Your task to perform on an android device: change text size in settings app Image 0: 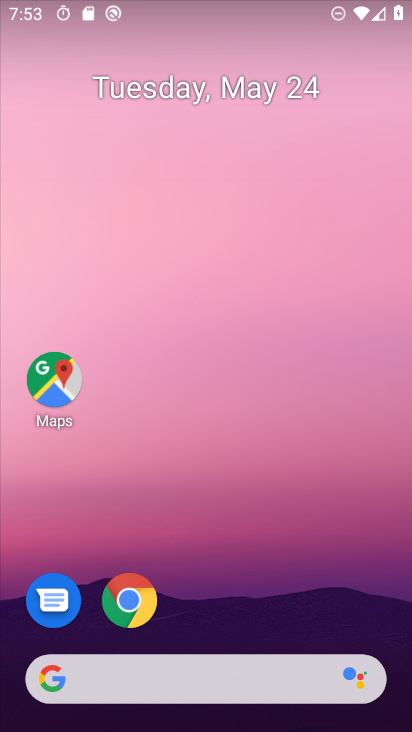
Step 0: drag from (220, 624) to (312, 35)
Your task to perform on an android device: change text size in settings app Image 1: 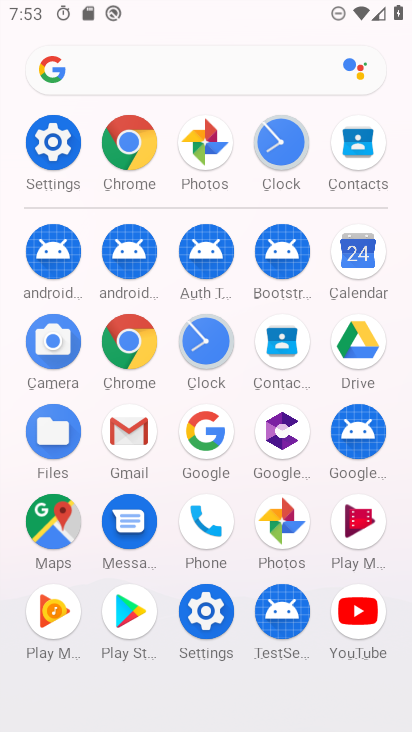
Step 1: click (57, 133)
Your task to perform on an android device: change text size in settings app Image 2: 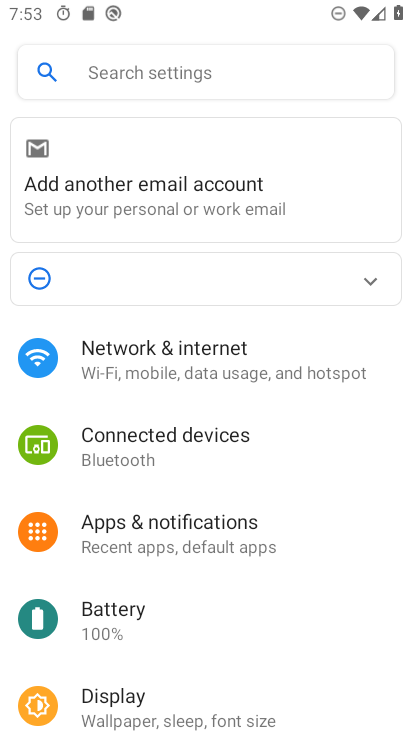
Step 2: click (142, 62)
Your task to perform on an android device: change text size in settings app Image 3: 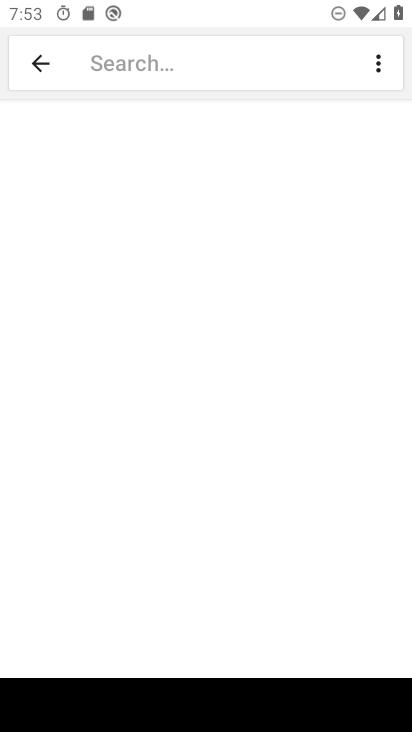
Step 3: type "text size"
Your task to perform on an android device: change text size in settings app Image 4: 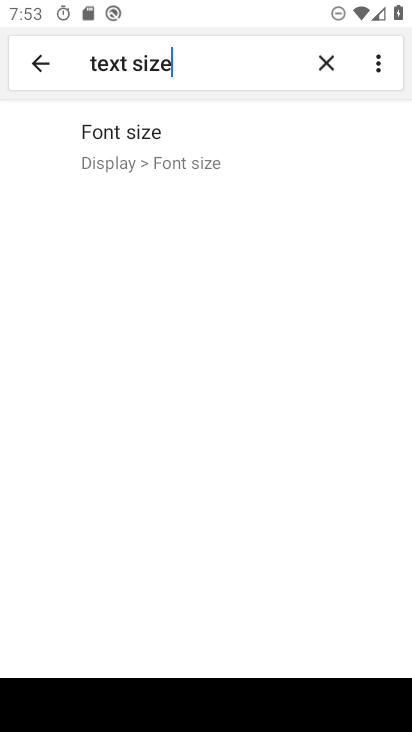
Step 4: click (165, 145)
Your task to perform on an android device: change text size in settings app Image 5: 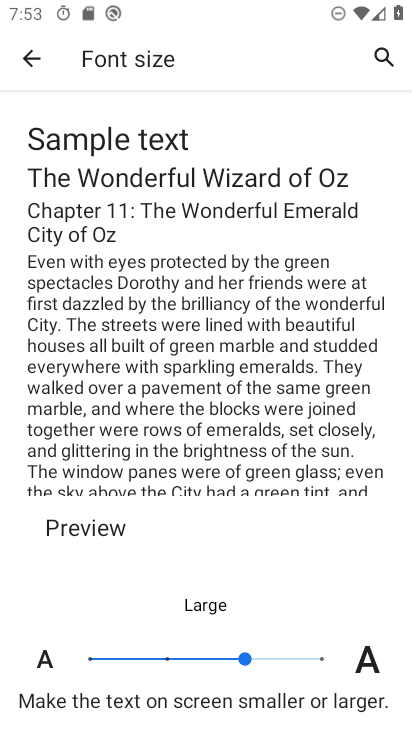
Step 5: task complete